Your task to perform on an android device: Open battery settings Image 0: 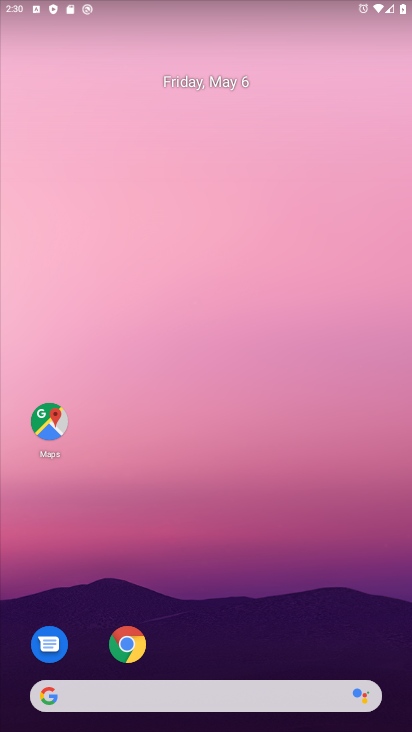
Step 0: drag from (219, 690) to (233, 126)
Your task to perform on an android device: Open battery settings Image 1: 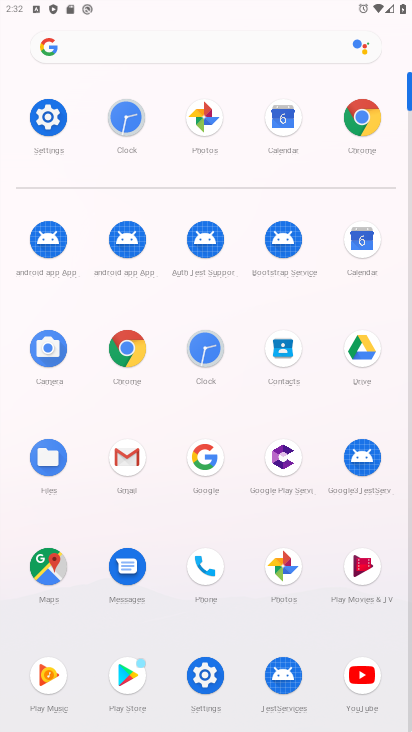
Step 1: click (54, 112)
Your task to perform on an android device: Open battery settings Image 2: 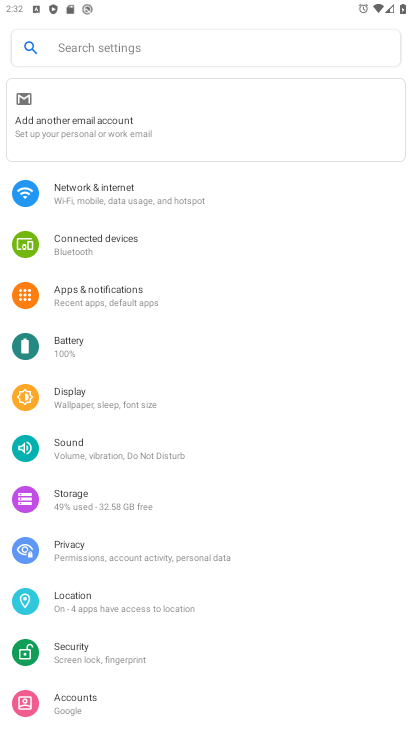
Step 2: click (93, 355)
Your task to perform on an android device: Open battery settings Image 3: 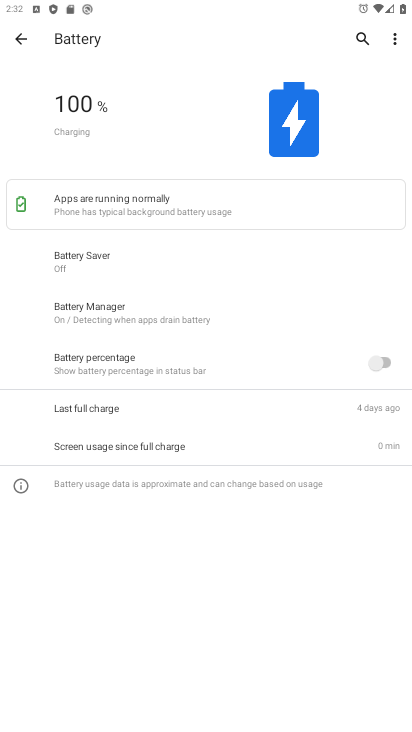
Step 3: click (399, 38)
Your task to perform on an android device: Open battery settings Image 4: 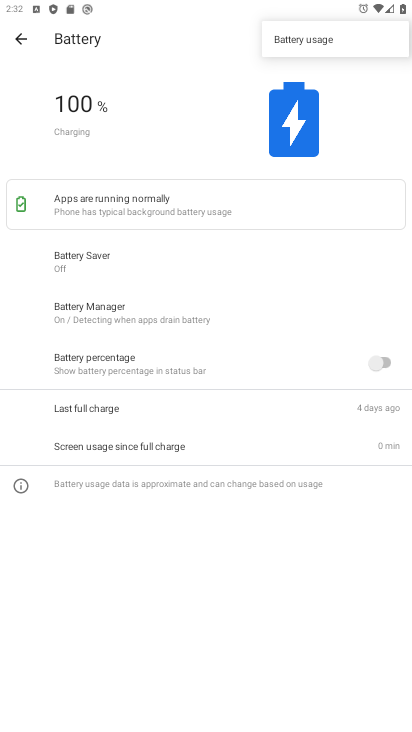
Step 4: click (356, 37)
Your task to perform on an android device: Open battery settings Image 5: 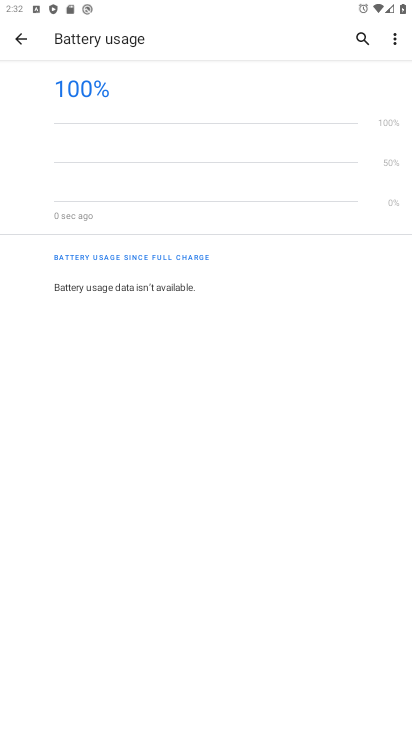
Step 5: click (390, 35)
Your task to perform on an android device: Open battery settings Image 6: 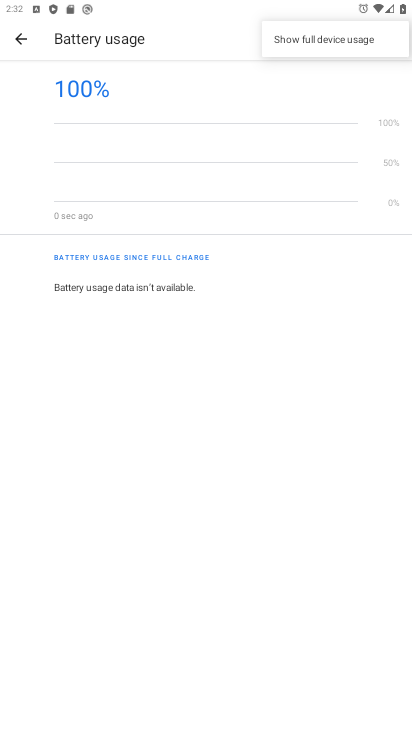
Step 6: click (228, 381)
Your task to perform on an android device: Open battery settings Image 7: 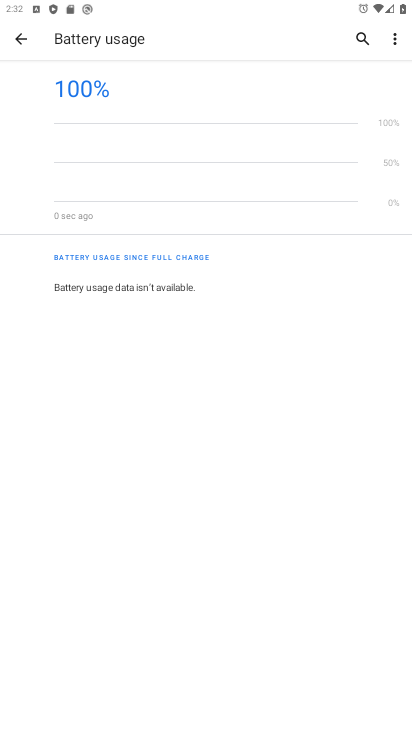
Step 7: task complete